Your task to perform on an android device: change your default location settings in chrome Image 0: 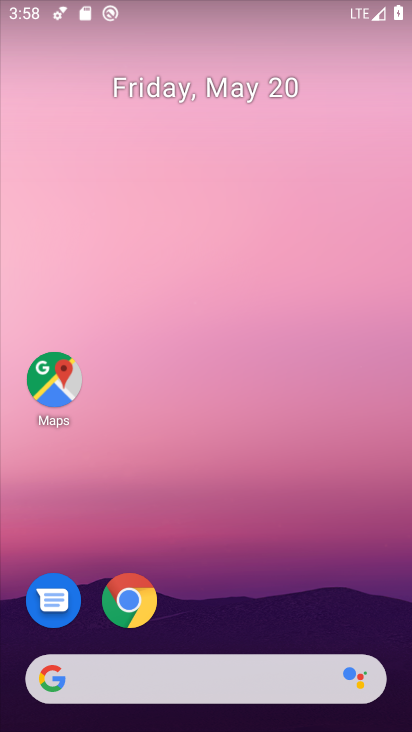
Step 0: drag from (373, 620) to (377, 222)
Your task to perform on an android device: change your default location settings in chrome Image 1: 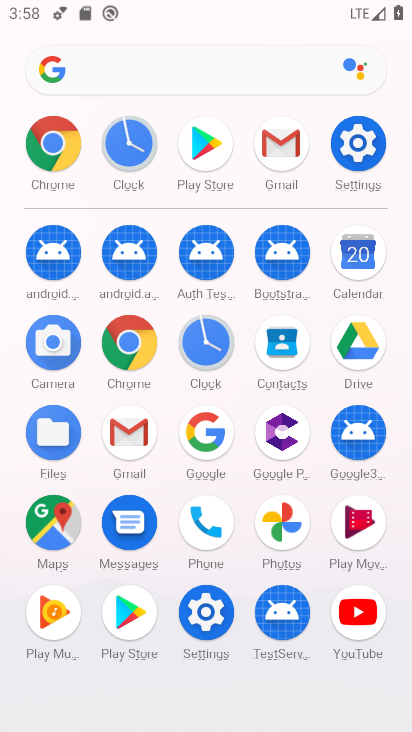
Step 1: click (142, 357)
Your task to perform on an android device: change your default location settings in chrome Image 2: 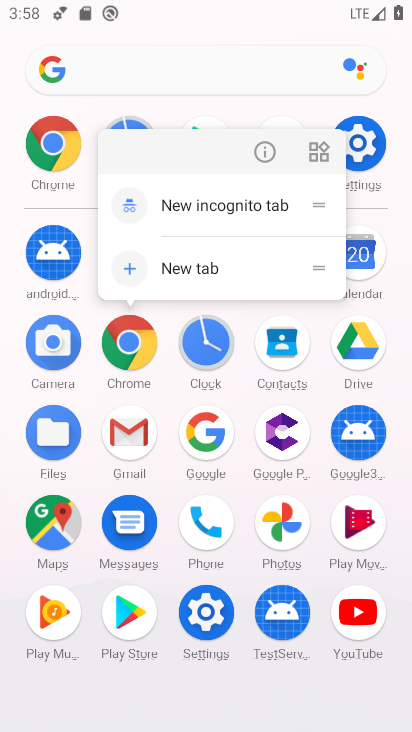
Step 2: click (142, 357)
Your task to perform on an android device: change your default location settings in chrome Image 3: 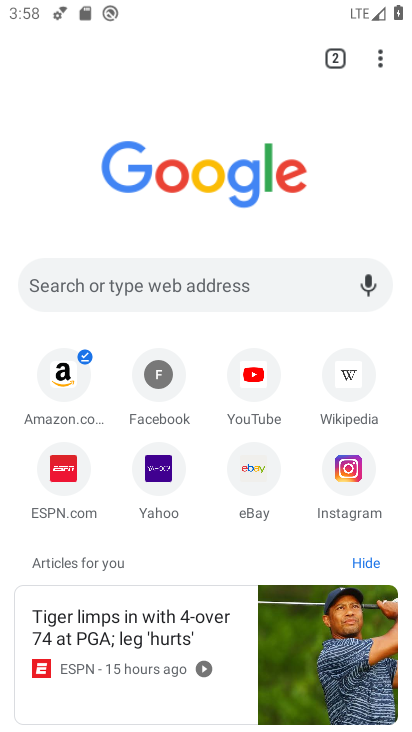
Step 3: click (379, 62)
Your task to perform on an android device: change your default location settings in chrome Image 4: 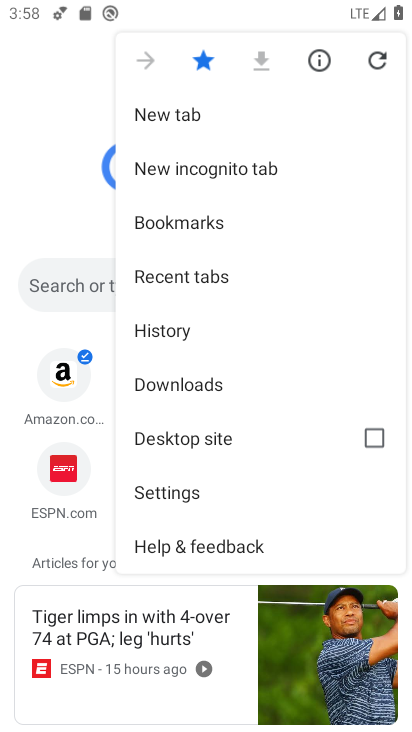
Step 4: click (212, 505)
Your task to perform on an android device: change your default location settings in chrome Image 5: 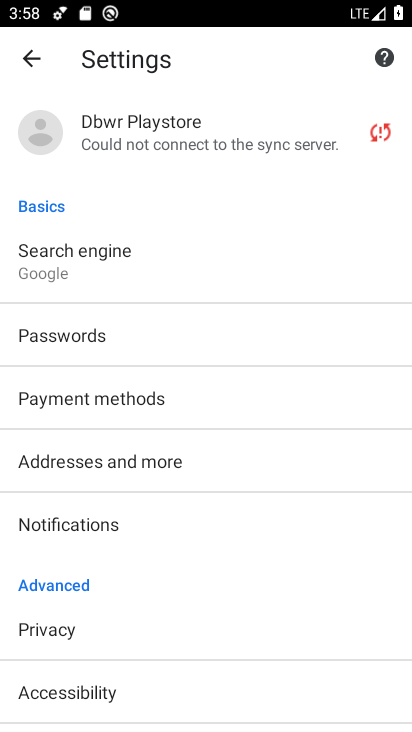
Step 5: drag from (237, 554) to (251, 462)
Your task to perform on an android device: change your default location settings in chrome Image 6: 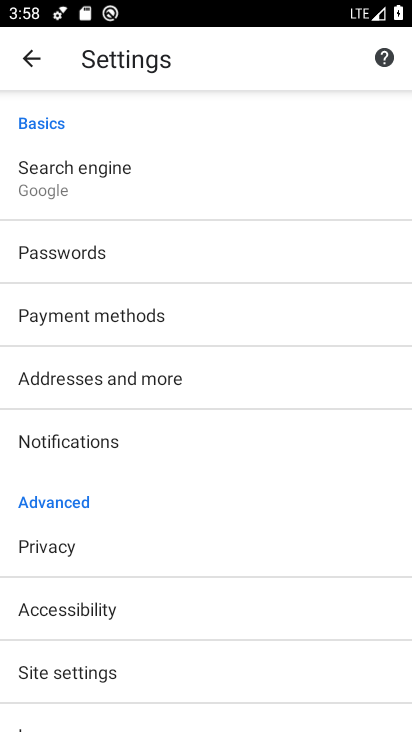
Step 6: drag from (283, 604) to (298, 535)
Your task to perform on an android device: change your default location settings in chrome Image 7: 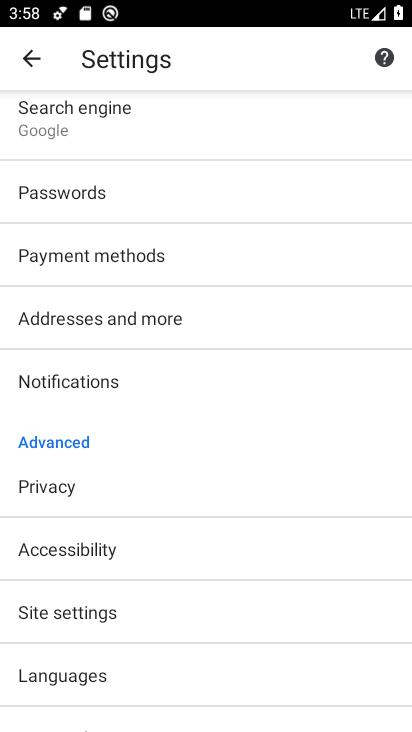
Step 7: drag from (298, 607) to (310, 527)
Your task to perform on an android device: change your default location settings in chrome Image 8: 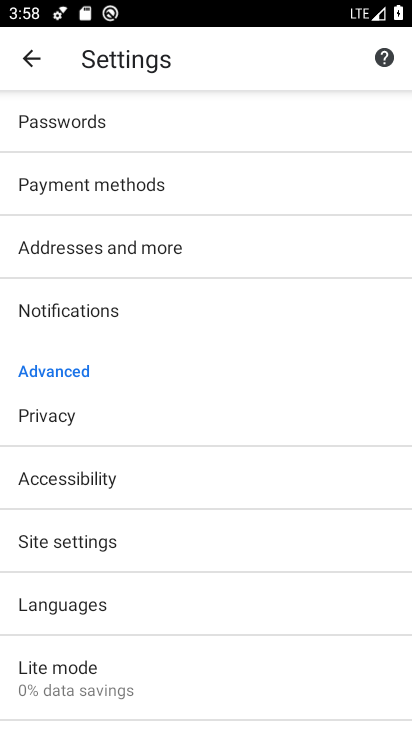
Step 8: drag from (303, 614) to (321, 516)
Your task to perform on an android device: change your default location settings in chrome Image 9: 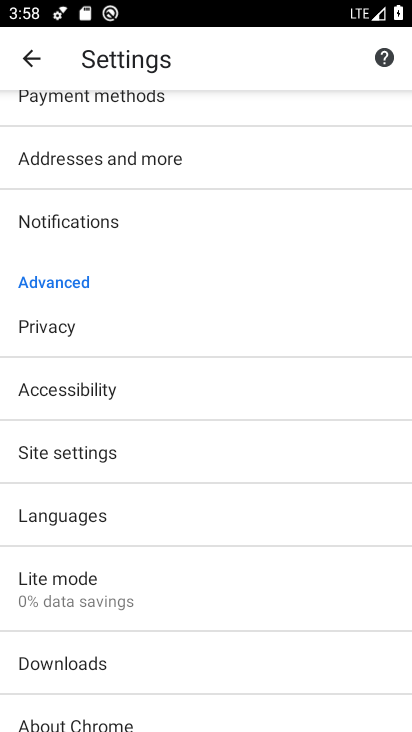
Step 9: drag from (310, 630) to (332, 530)
Your task to perform on an android device: change your default location settings in chrome Image 10: 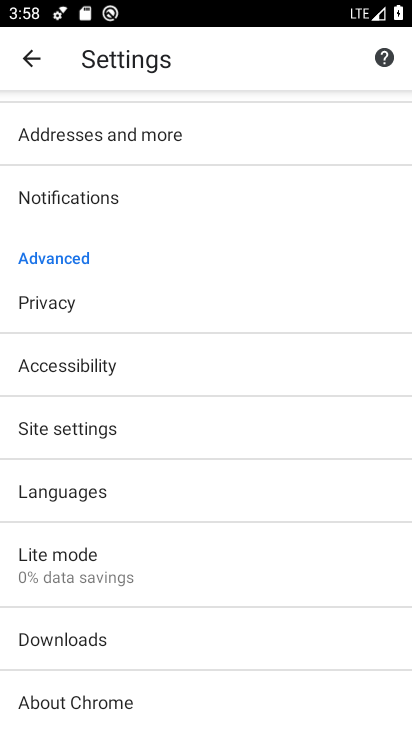
Step 10: drag from (324, 408) to (317, 494)
Your task to perform on an android device: change your default location settings in chrome Image 11: 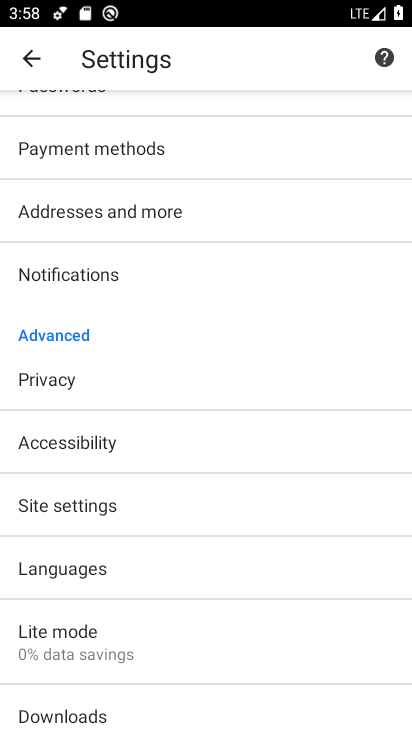
Step 11: click (315, 494)
Your task to perform on an android device: change your default location settings in chrome Image 12: 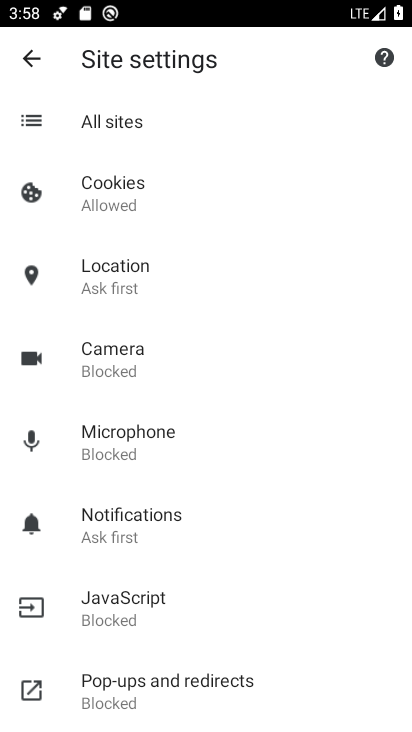
Step 12: drag from (281, 553) to (278, 445)
Your task to perform on an android device: change your default location settings in chrome Image 13: 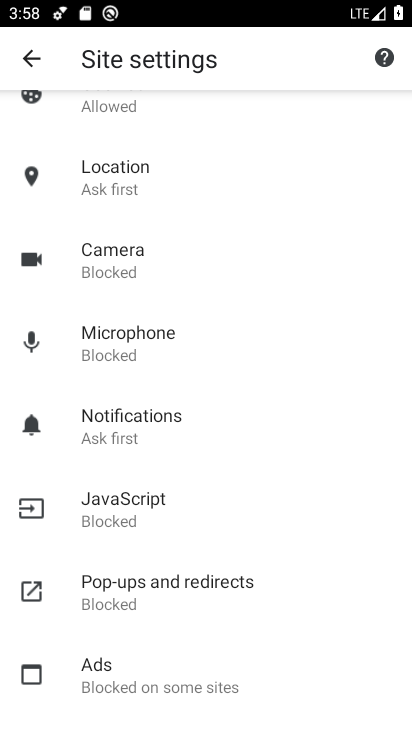
Step 13: drag from (300, 637) to (301, 522)
Your task to perform on an android device: change your default location settings in chrome Image 14: 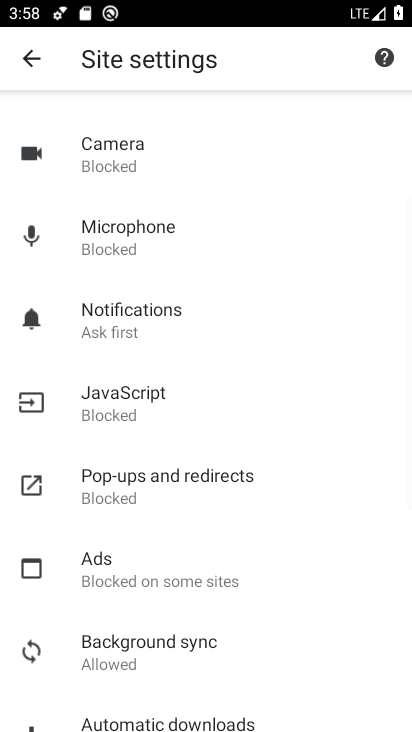
Step 14: drag from (301, 637) to (309, 542)
Your task to perform on an android device: change your default location settings in chrome Image 15: 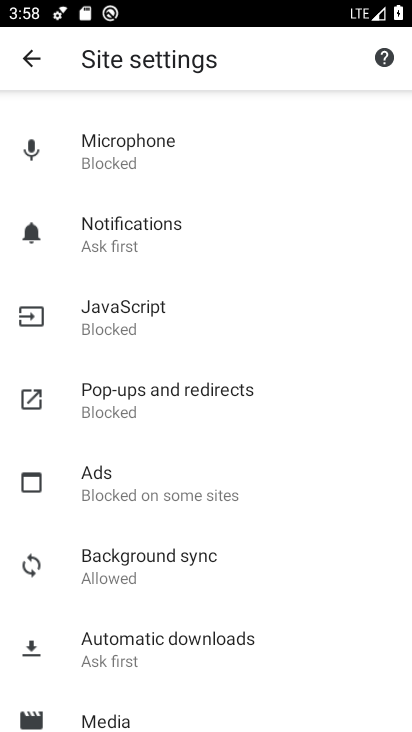
Step 15: drag from (322, 641) to (319, 574)
Your task to perform on an android device: change your default location settings in chrome Image 16: 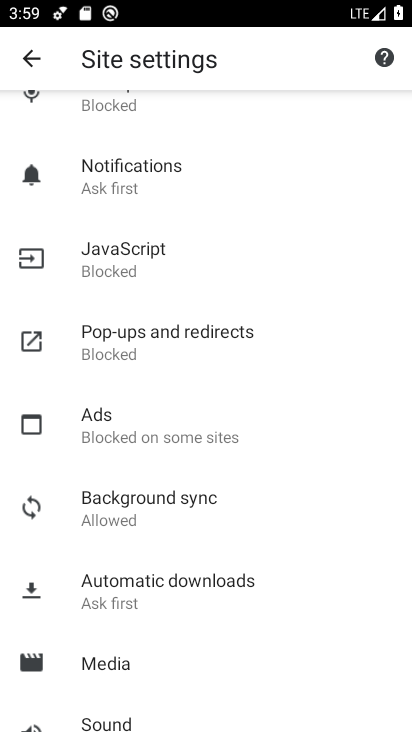
Step 16: drag from (320, 576) to (325, 489)
Your task to perform on an android device: change your default location settings in chrome Image 17: 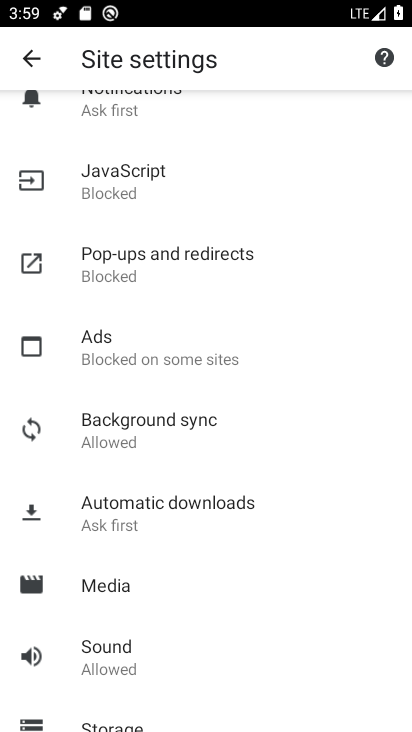
Step 17: drag from (307, 653) to (308, 563)
Your task to perform on an android device: change your default location settings in chrome Image 18: 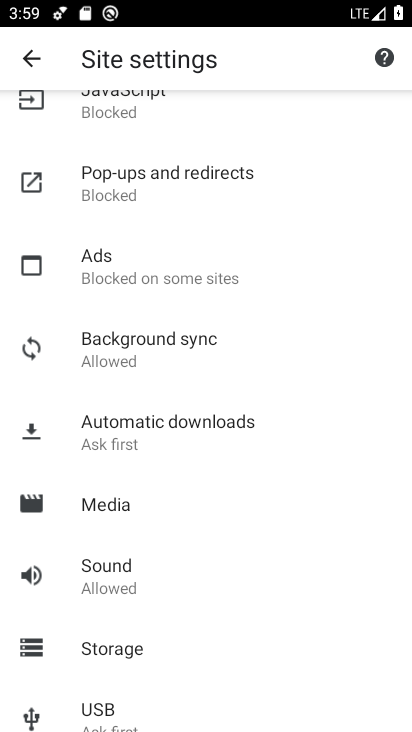
Step 18: drag from (300, 639) to (301, 427)
Your task to perform on an android device: change your default location settings in chrome Image 19: 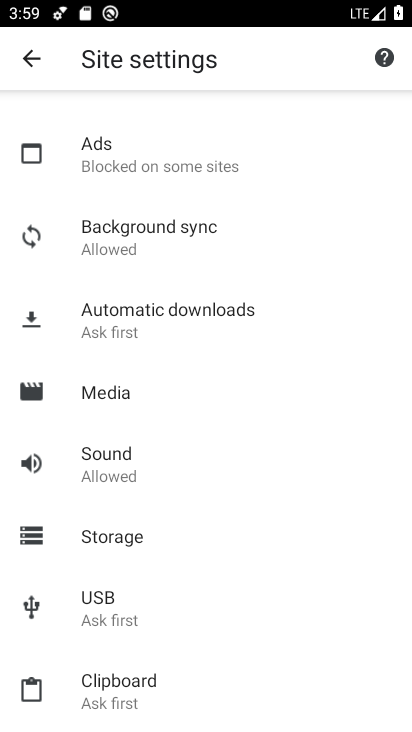
Step 19: drag from (312, 395) to (314, 511)
Your task to perform on an android device: change your default location settings in chrome Image 20: 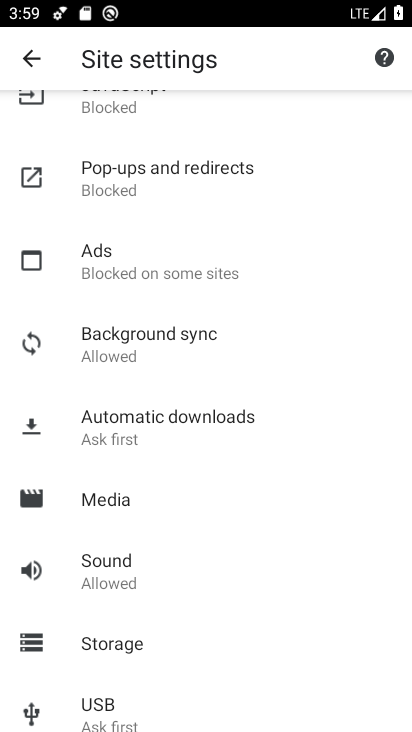
Step 20: drag from (328, 398) to (324, 494)
Your task to perform on an android device: change your default location settings in chrome Image 21: 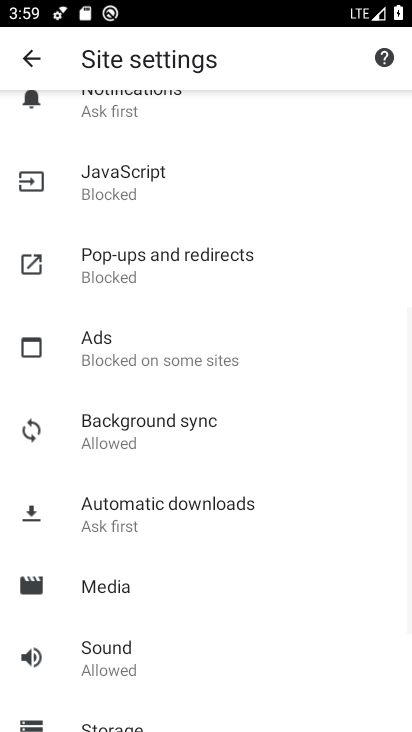
Step 21: drag from (323, 354) to (328, 471)
Your task to perform on an android device: change your default location settings in chrome Image 22: 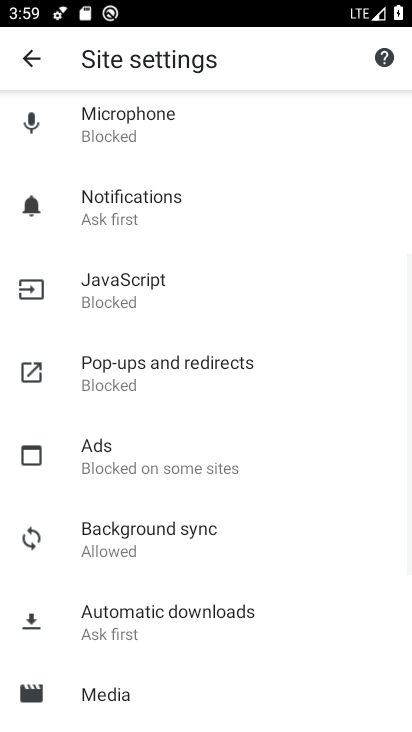
Step 22: drag from (335, 339) to (339, 434)
Your task to perform on an android device: change your default location settings in chrome Image 23: 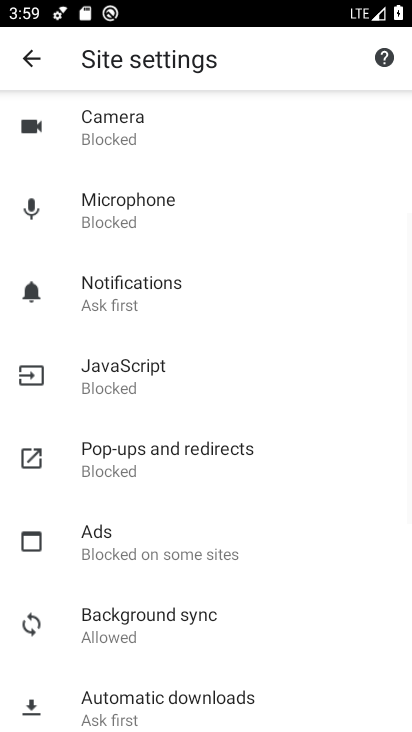
Step 23: drag from (330, 325) to (337, 427)
Your task to perform on an android device: change your default location settings in chrome Image 24: 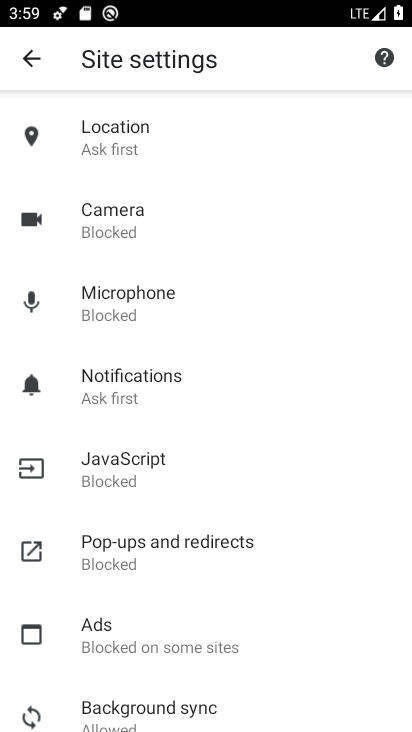
Step 24: drag from (318, 314) to (320, 413)
Your task to perform on an android device: change your default location settings in chrome Image 25: 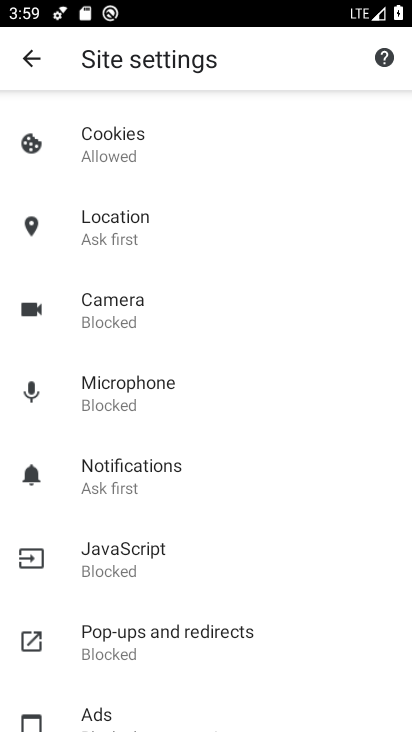
Step 25: drag from (318, 318) to (309, 453)
Your task to perform on an android device: change your default location settings in chrome Image 26: 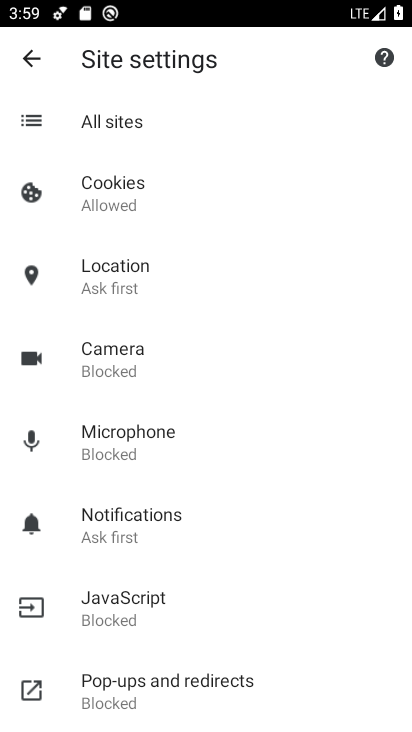
Step 26: click (170, 291)
Your task to perform on an android device: change your default location settings in chrome Image 27: 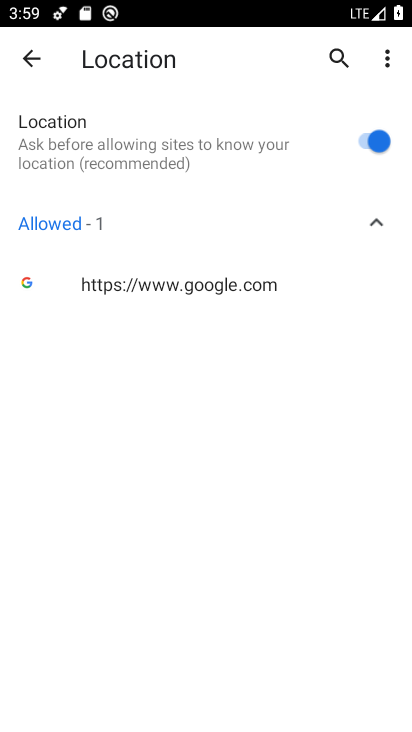
Step 27: click (366, 144)
Your task to perform on an android device: change your default location settings in chrome Image 28: 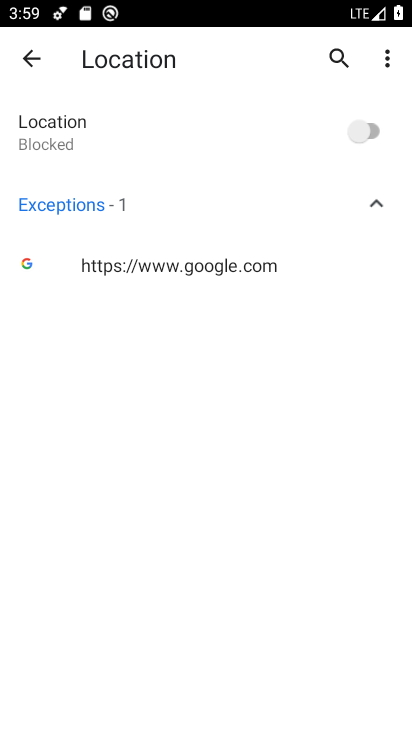
Step 28: task complete